Your task to perform on an android device: remove spam from my inbox in the gmail app Image 0: 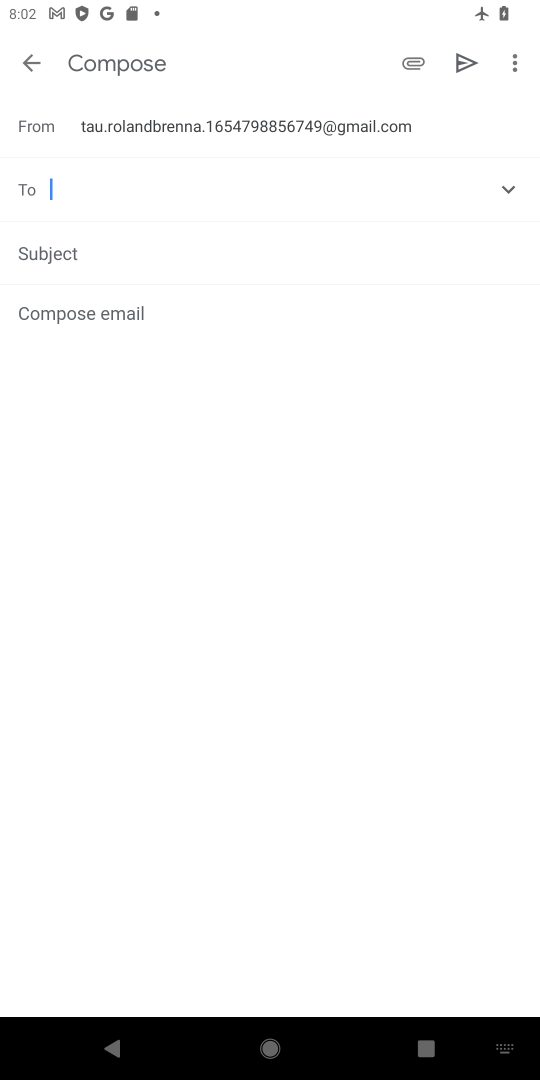
Step 0: task impossible